Your task to perform on an android device: turn on the 24-hour format for clock Image 0: 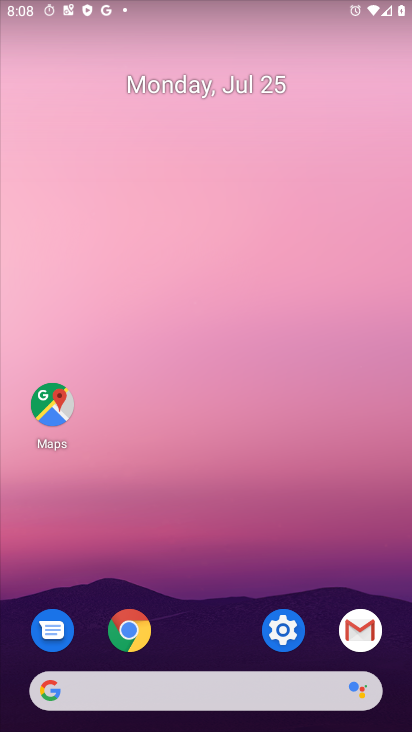
Step 0: drag from (230, 700) to (213, 215)
Your task to perform on an android device: turn on the 24-hour format for clock Image 1: 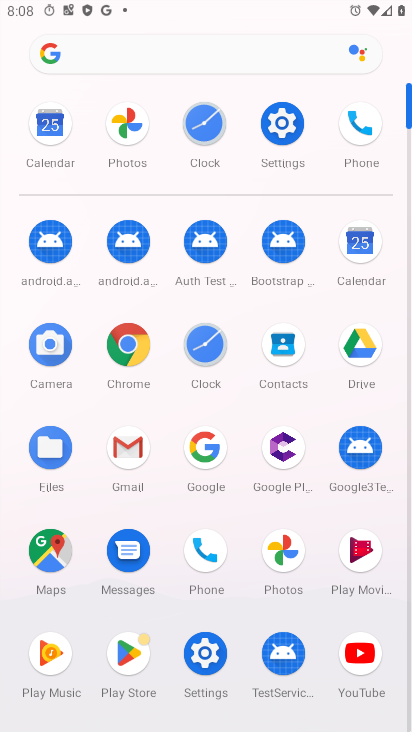
Step 1: click (210, 357)
Your task to perform on an android device: turn on the 24-hour format for clock Image 2: 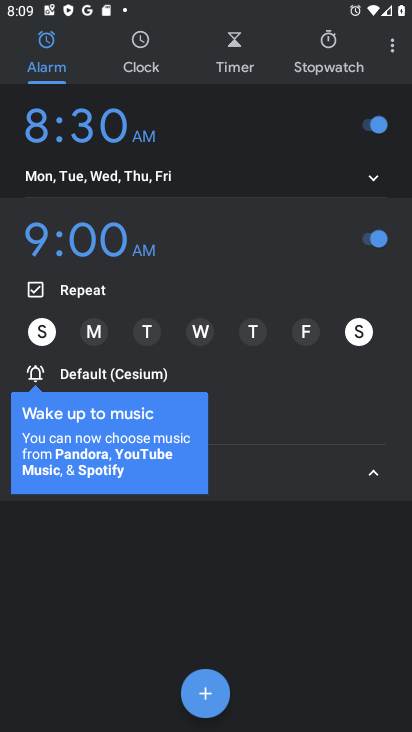
Step 2: click (375, 82)
Your task to perform on an android device: turn on the 24-hour format for clock Image 3: 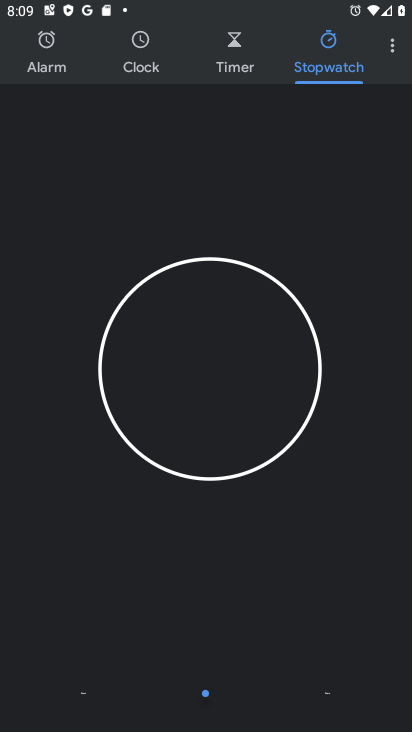
Step 3: click (385, 65)
Your task to perform on an android device: turn on the 24-hour format for clock Image 4: 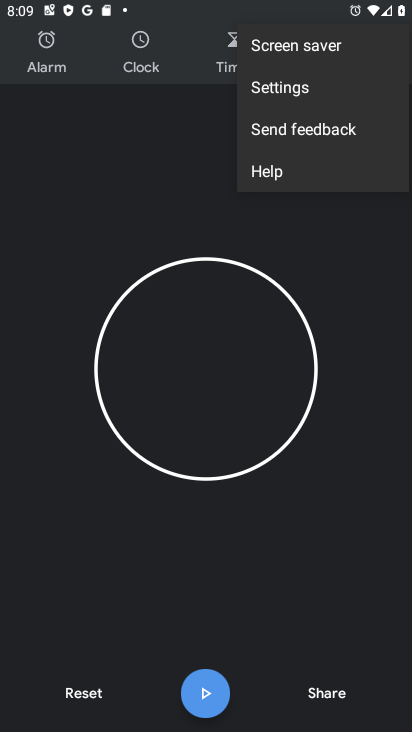
Step 4: click (346, 86)
Your task to perform on an android device: turn on the 24-hour format for clock Image 5: 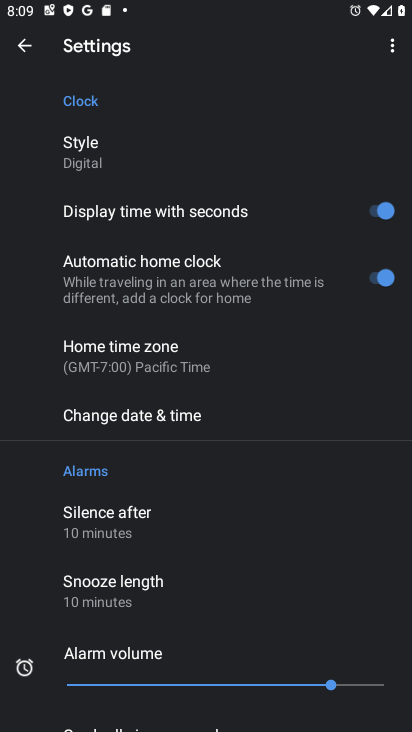
Step 5: click (115, 416)
Your task to perform on an android device: turn on the 24-hour format for clock Image 6: 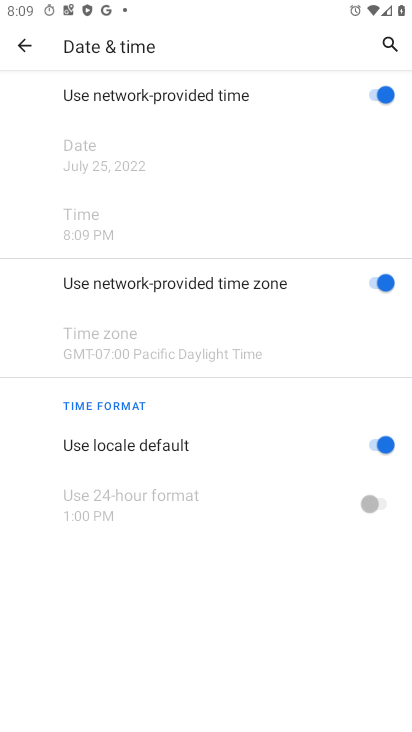
Step 6: click (367, 454)
Your task to perform on an android device: turn on the 24-hour format for clock Image 7: 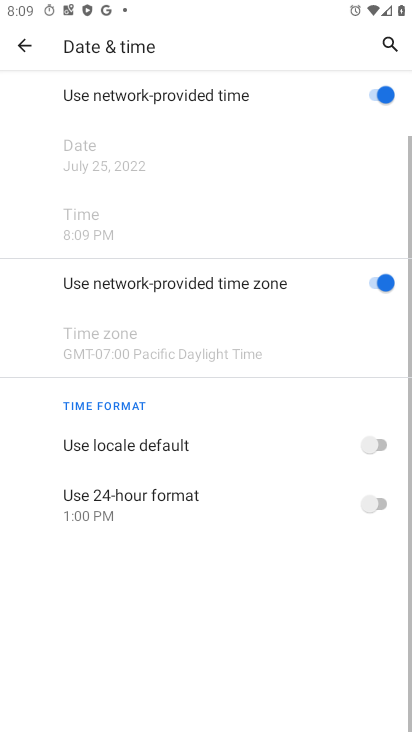
Step 7: click (372, 501)
Your task to perform on an android device: turn on the 24-hour format for clock Image 8: 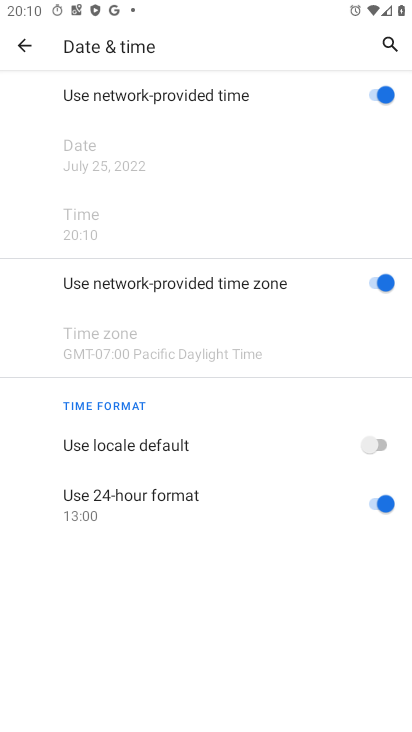
Step 8: task complete